Your task to perform on an android device: uninstall "TextNow: Call + Text Unlimited" Image 0: 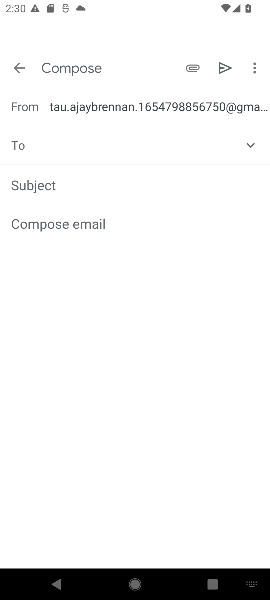
Step 0: press home button
Your task to perform on an android device: uninstall "TextNow: Call + Text Unlimited" Image 1: 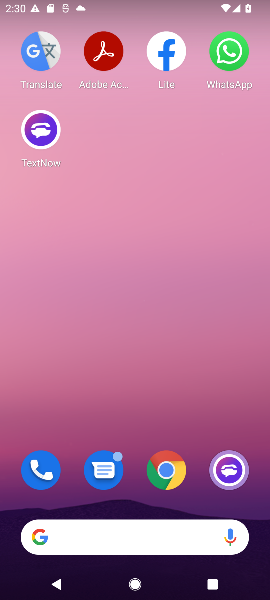
Step 1: drag from (118, 507) to (124, 107)
Your task to perform on an android device: uninstall "TextNow: Call + Text Unlimited" Image 2: 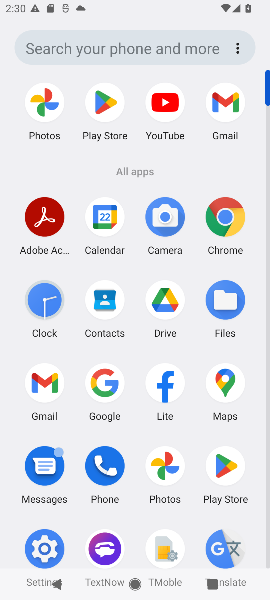
Step 2: click (100, 92)
Your task to perform on an android device: uninstall "TextNow: Call + Text Unlimited" Image 3: 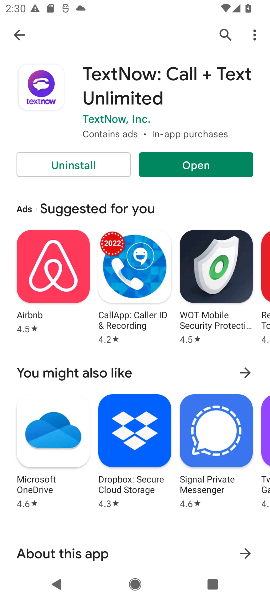
Step 3: click (68, 165)
Your task to perform on an android device: uninstall "TextNow: Call + Text Unlimited" Image 4: 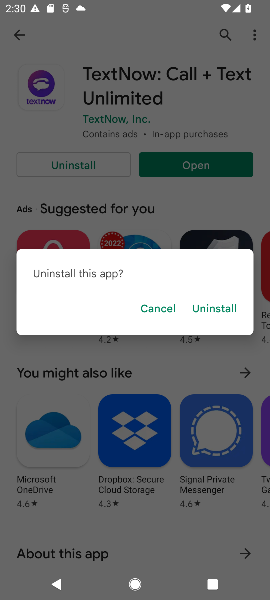
Step 4: click (210, 310)
Your task to perform on an android device: uninstall "TextNow: Call + Text Unlimited" Image 5: 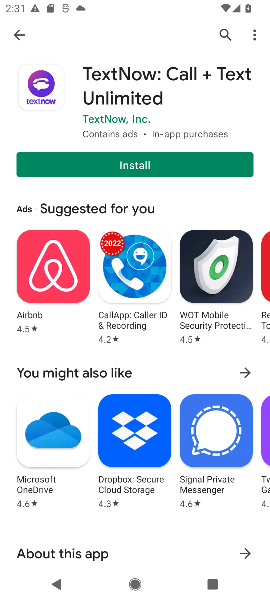
Step 5: task complete